Your task to perform on an android device: toggle notification dots Image 0: 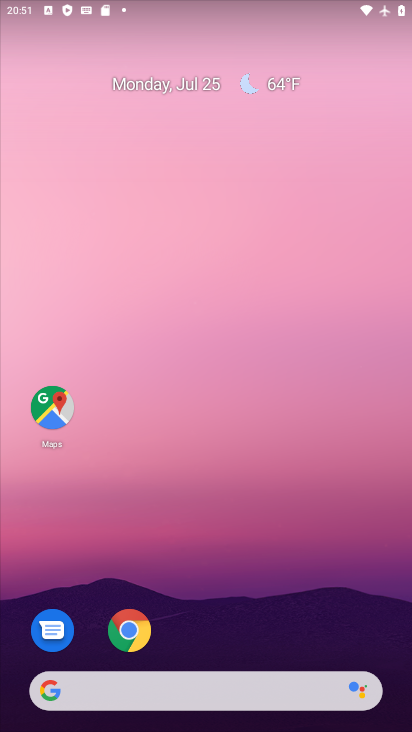
Step 0: drag from (386, 657) to (299, 99)
Your task to perform on an android device: toggle notification dots Image 1: 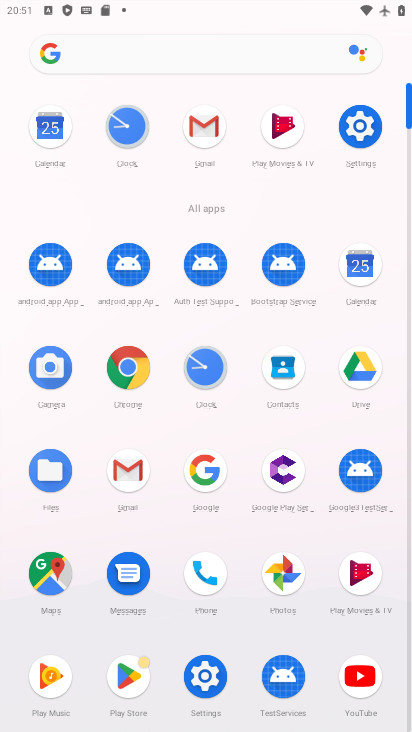
Step 1: click (205, 676)
Your task to perform on an android device: toggle notification dots Image 2: 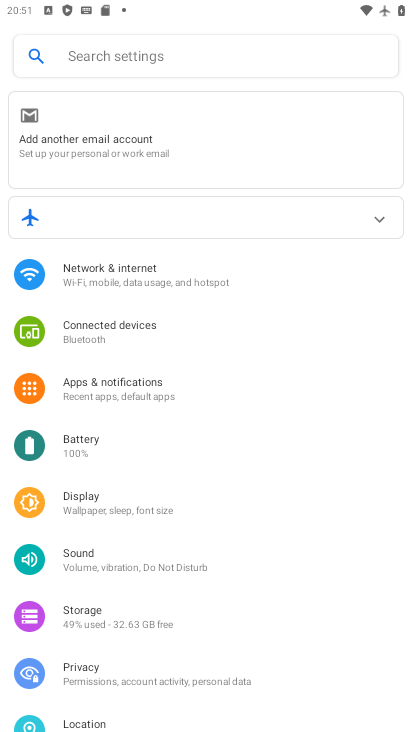
Step 2: click (101, 384)
Your task to perform on an android device: toggle notification dots Image 3: 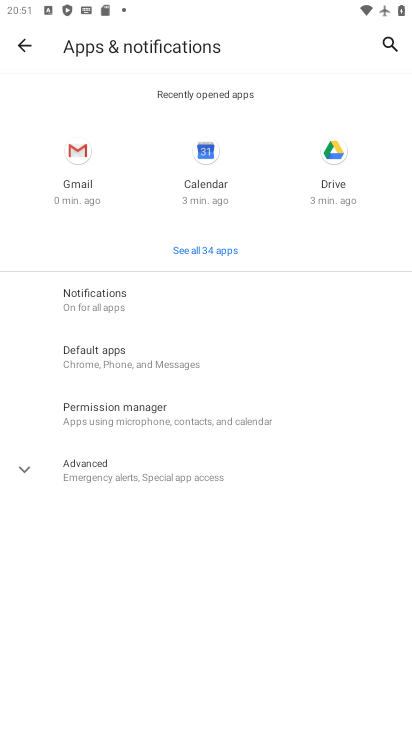
Step 3: click (82, 291)
Your task to perform on an android device: toggle notification dots Image 4: 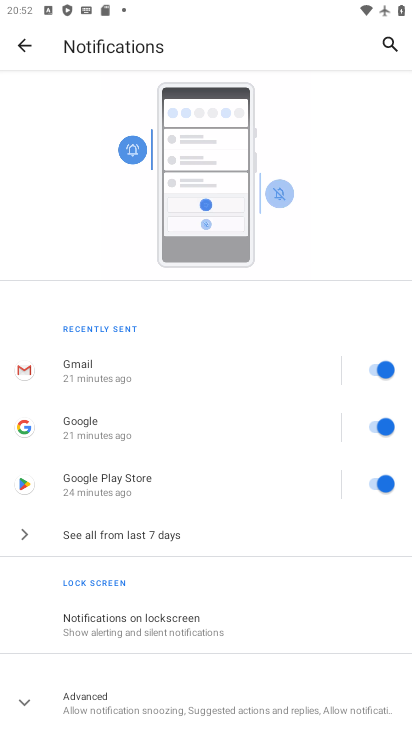
Step 4: drag from (241, 660) to (261, 284)
Your task to perform on an android device: toggle notification dots Image 5: 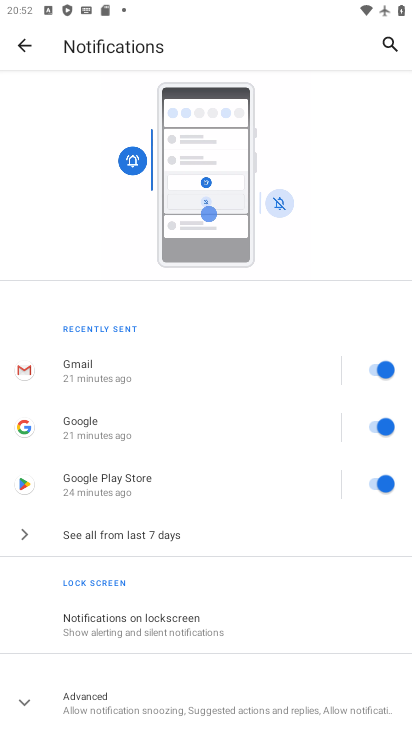
Step 5: click (26, 701)
Your task to perform on an android device: toggle notification dots Image 6: 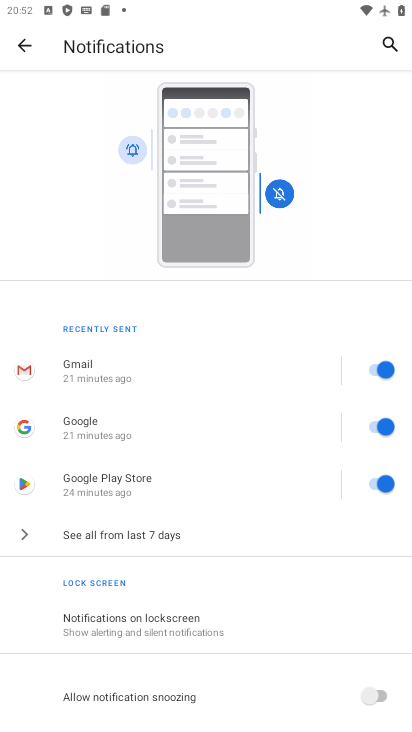
Step 6: drag from (290, 688) to (248, 292)
Your task to perform on an android device: toggle notification dots Image 7: 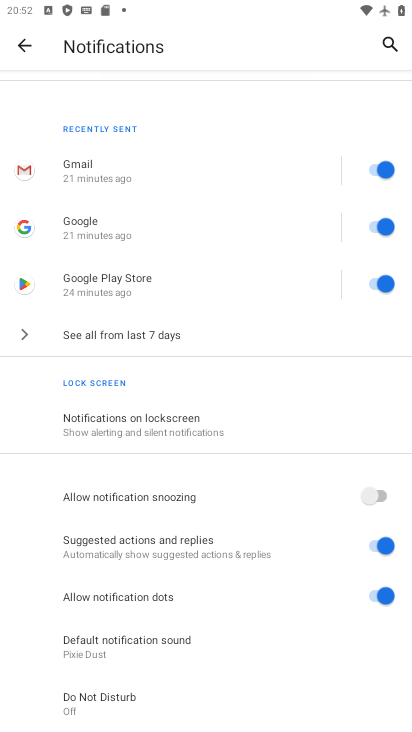
Step 7: click (374, 595)
Your task to perform on an android device: toggle notification dots Image 8: 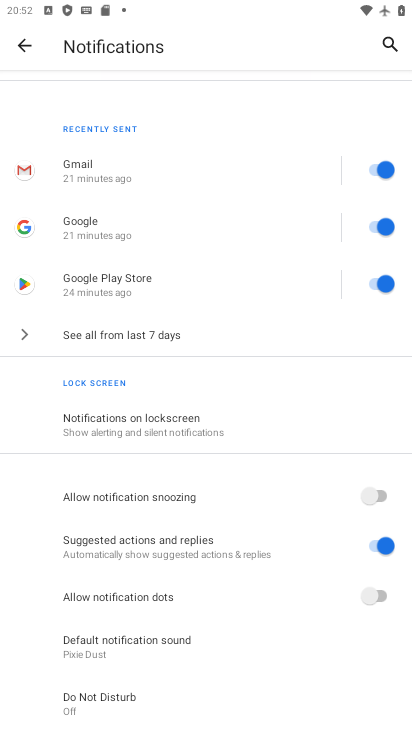
Step 8: task complete